Your task to perform on an android device: check android version Image 0: 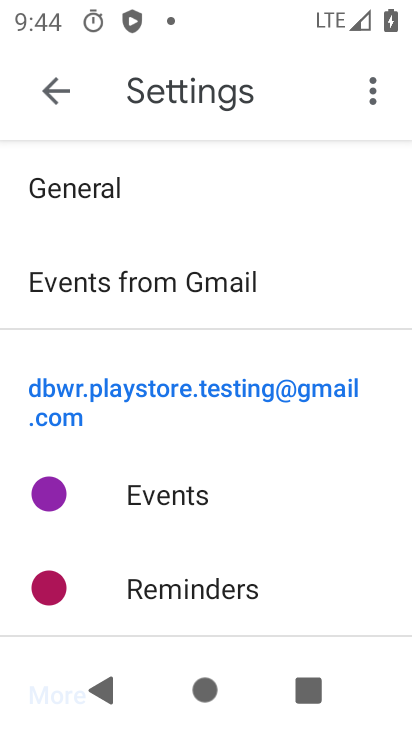
Step 0: press home button
Your task to perform on an android device: check android version Image 1: 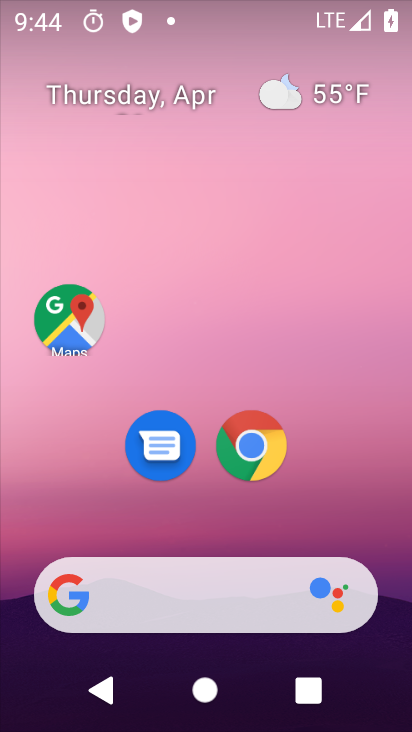
Step 1: drag from (375, 532) to (259, 22)
Your task to perform on an android device: check android version Image 2: 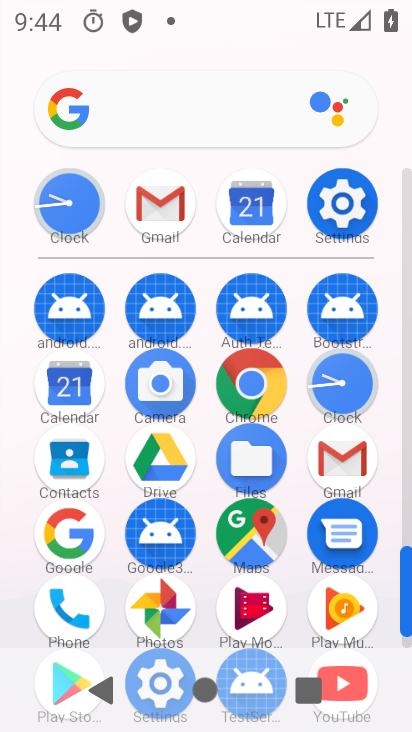
Step 2: click (333, 205)
Your task to perform on an android device: check android version Image 3: 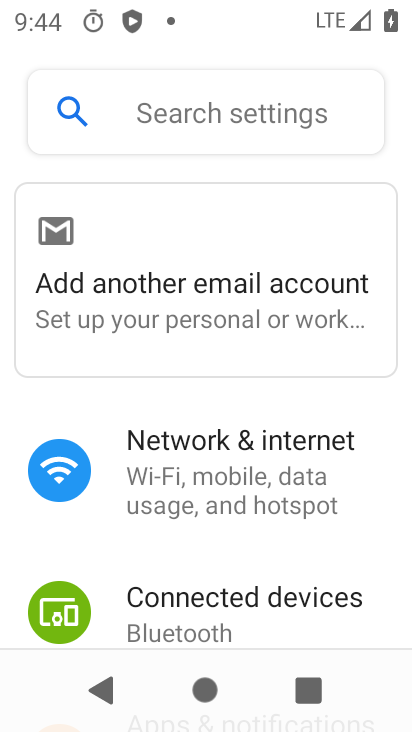
Step 3: drag from (380, 617) to (360, 99)
Your task to perform on an android device: check android version Image 4: 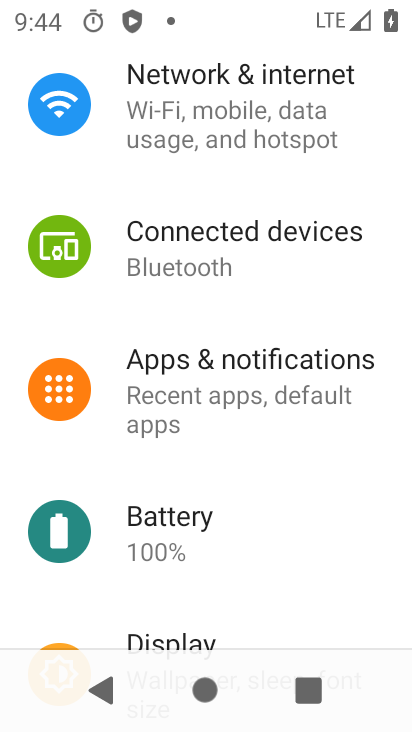
Step 4: drag from (295, 479) to (265, 65)
Your task to perform on an android device: check android version Image 5: 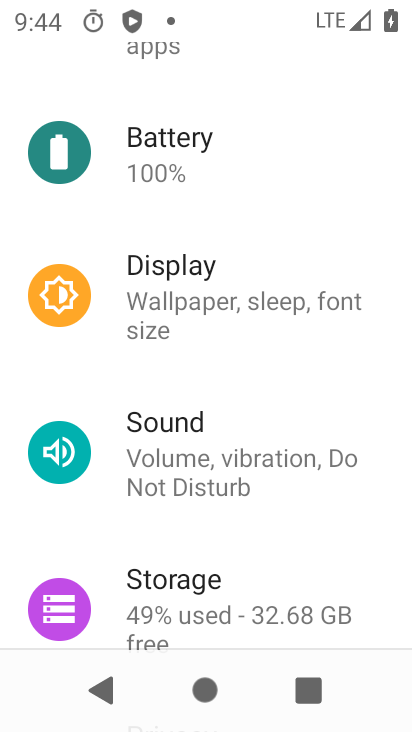
Step 5: drag from (261, 401) to (230, 28)
Your task to perform on an android device: check android version Image 6: 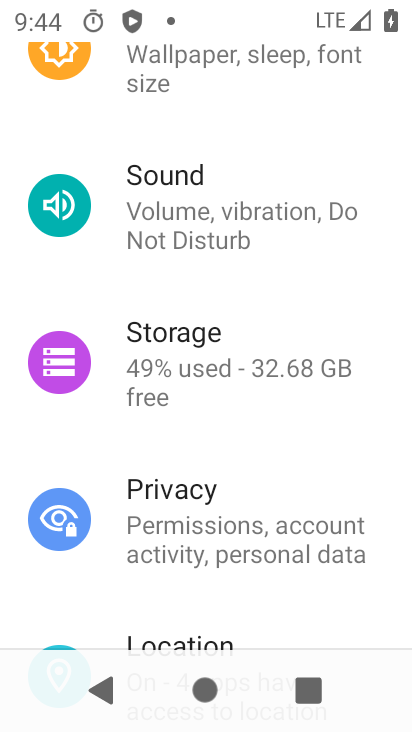
Step 6: drag from (203, 524) to (185, 119)
Your task to perform on an android device: check android version Image 7: 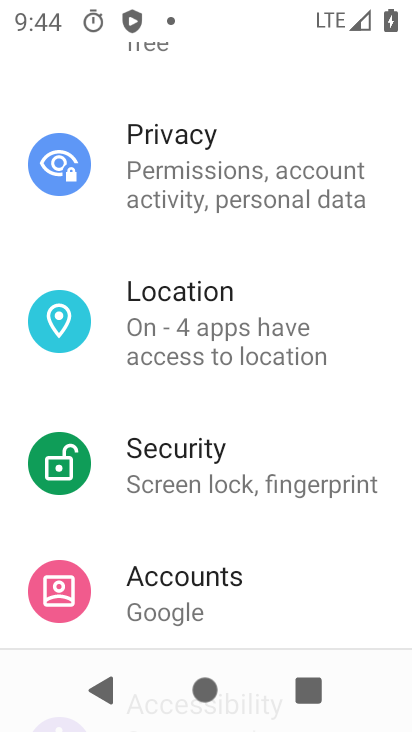
Step 7: drag from (230, 586) to (185, 119)
Your task to perform on an android device: check android version Image 8: 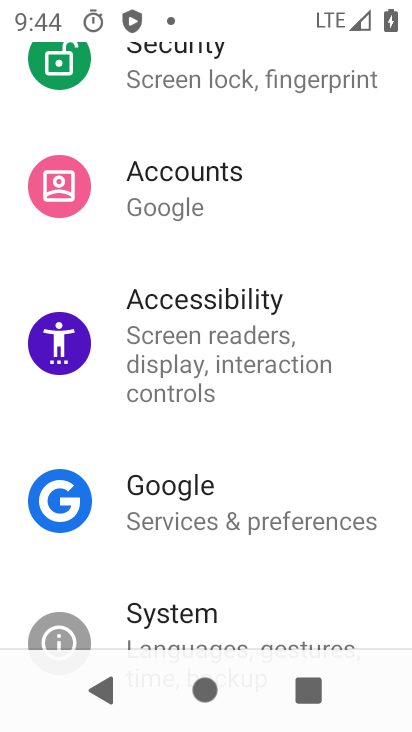
Step 8: drag from (216, 537) to (204, 117)
Your task to perform on an android device: check android version Image 9: 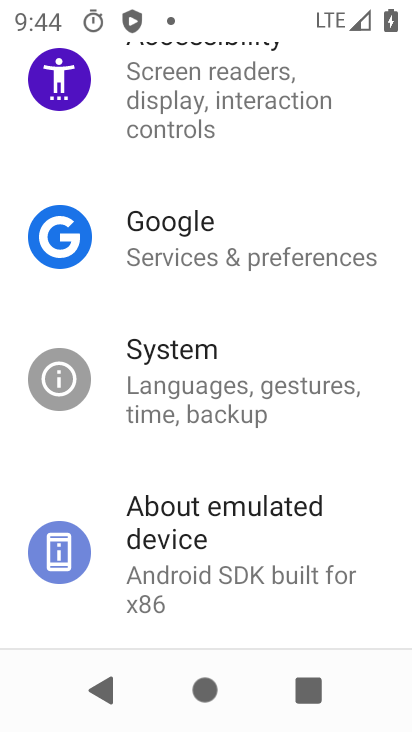
Step 9: click (200, 571)
Your task to perform on an android device: check android version Image 10: 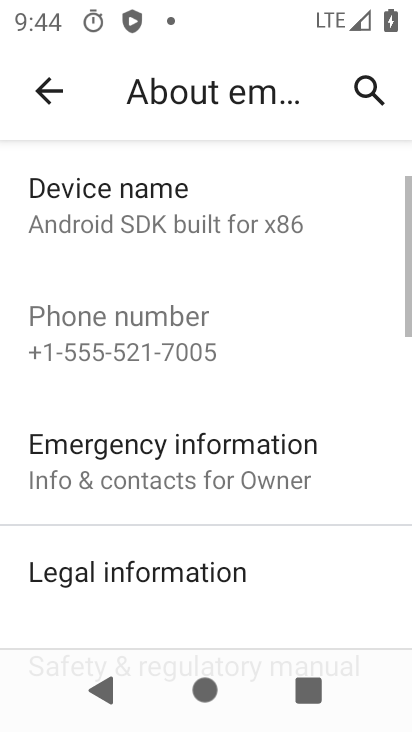
Step 10: drag from (200, 571) to (345, 0)
Your task to perform on an android device: check android version Image 11: 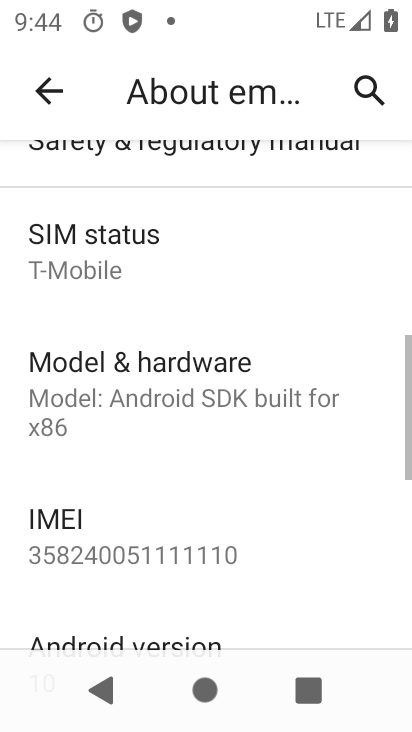
Step 11: drag from (313, 514) to (329, 4)
Your task to perform on an android device: check android version Image 12: 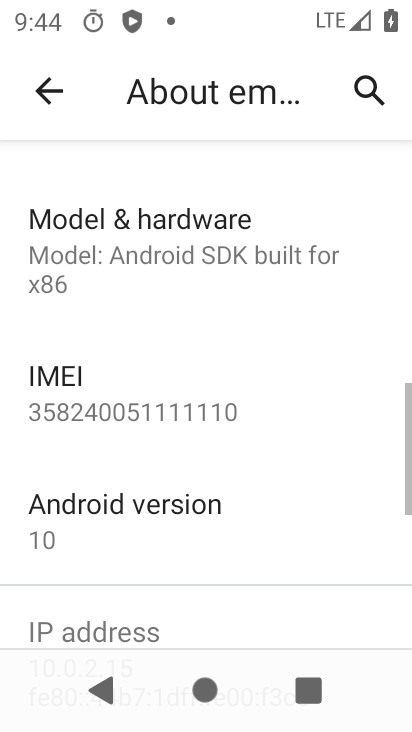
Step 12: click (38, 512)
Your task to perform on an android device: check android version Image 13: 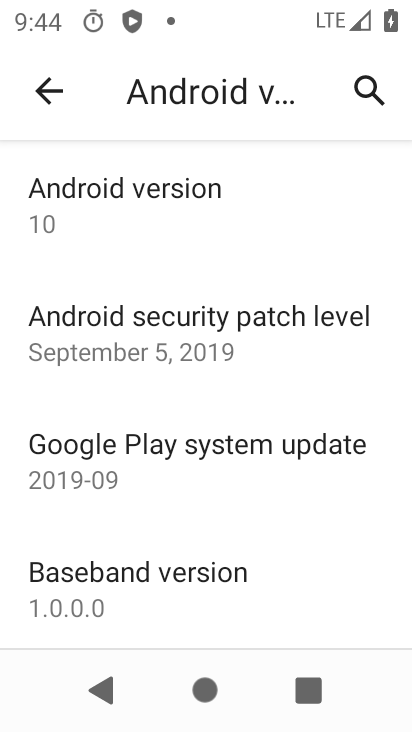
Step 13: drag from (299, 562) to (398, 12)
Your task to perform on an android device: check android version Image 14: 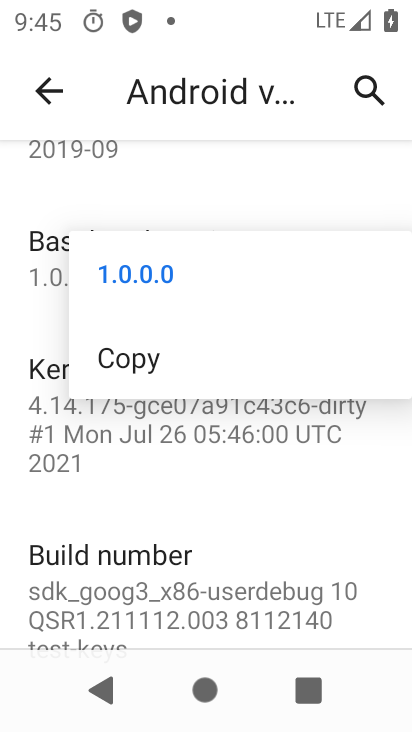
Step 14: click (366, 489)
Your task to perform on an android device: check android version Image 15: 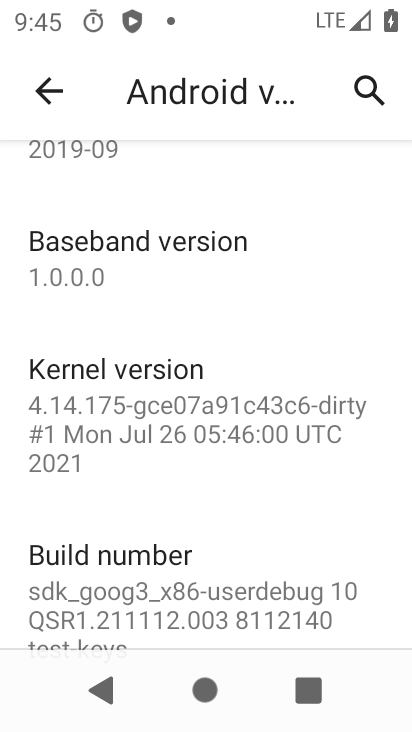
Step 15: task complete